Your task to perform on an android device: Search for the best rated circular saw on Lowes.com Image 0: 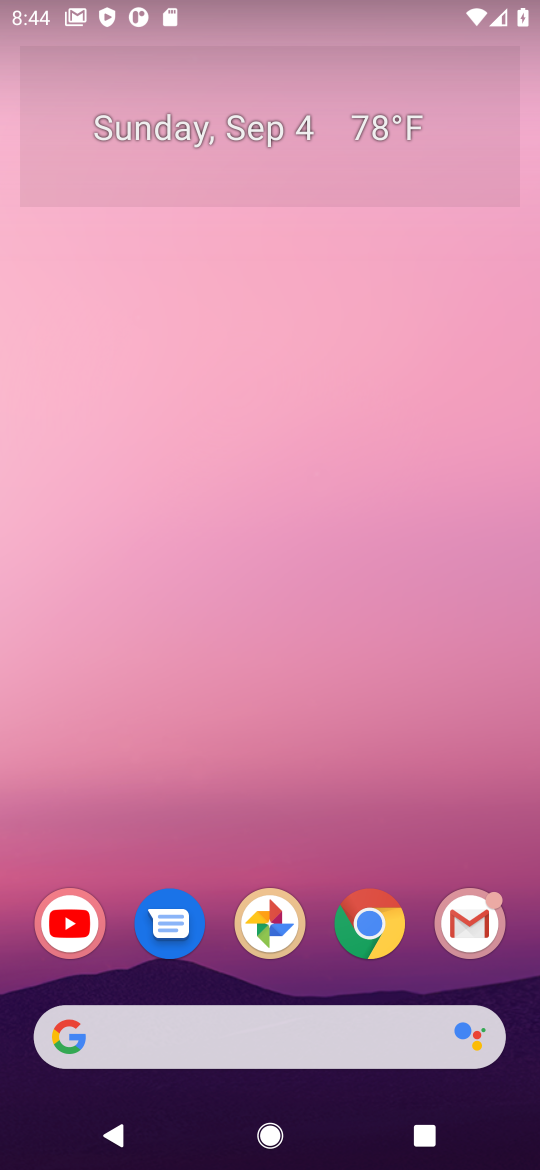
Step 0: click (354, 922)
Your task to perform on an android device: Search for the best rated circular saw on Lowes.com Image 1: 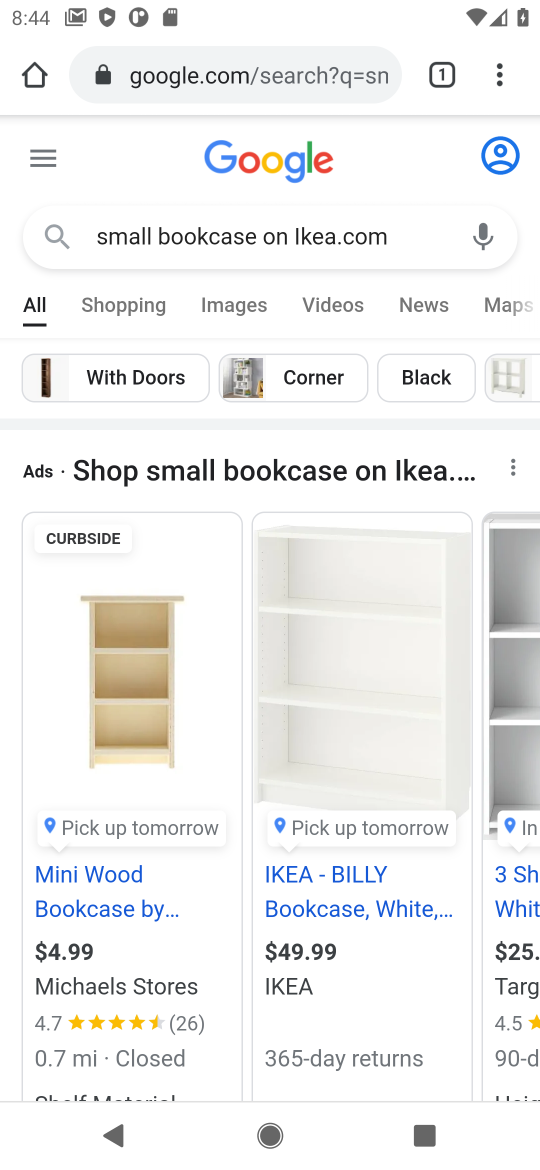
Step 1: click (174, 45)
Your task to perform on an android device: Search for the best rated circular saw on Lowes.com Image 2: 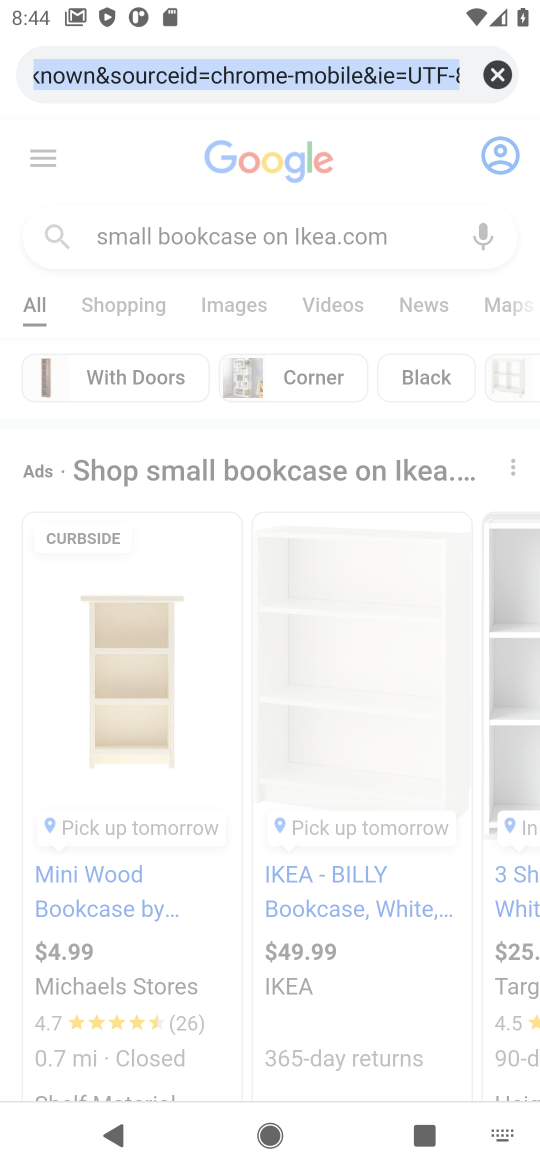
Step 2: click (173, 48)
Your task to perform on an android device: Search for the best rated circular saw on Lowes.com Image 3: 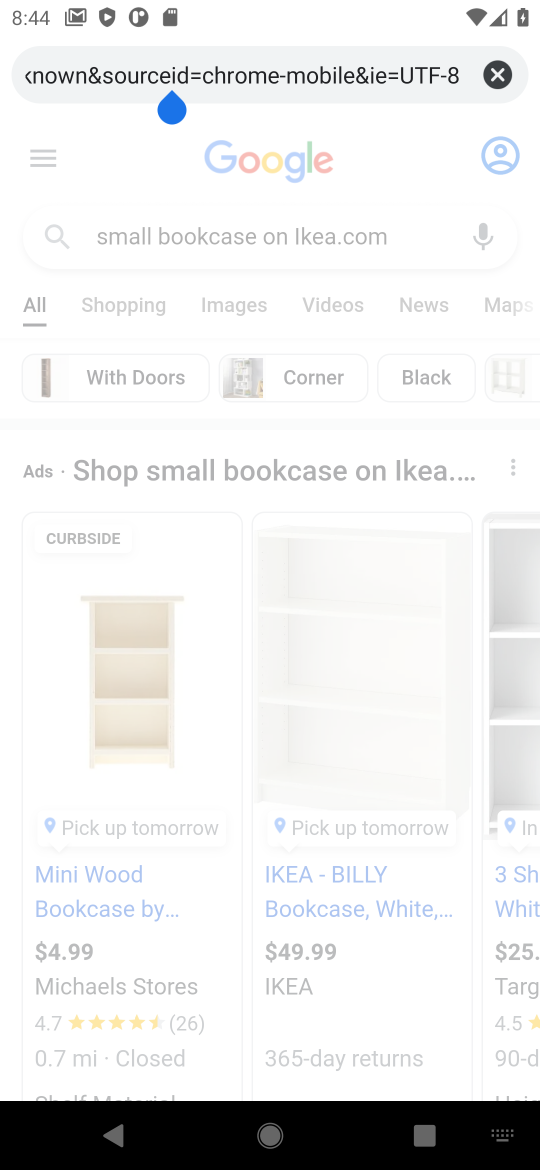
Step 3: click (494, 79)
Your task to perform on an android device: Search for the best rated circular saw on Lowes.com Image 4: 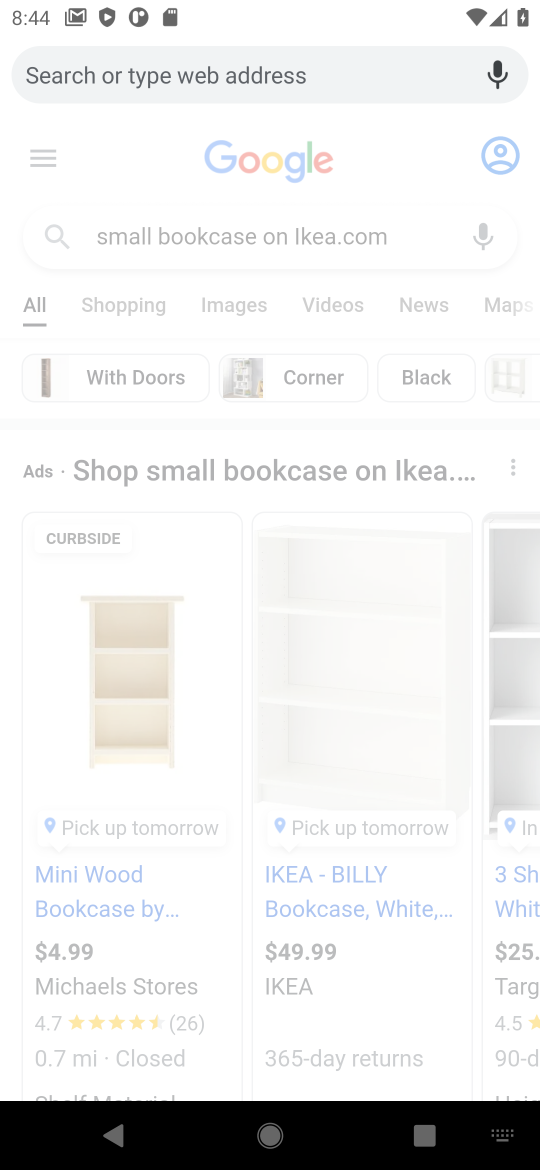
Step 4: type "the best rated circular saw on Lowes.com"
Your task to perform on an android device: Search for the best rated circular saw on Lowes.com Image 5: 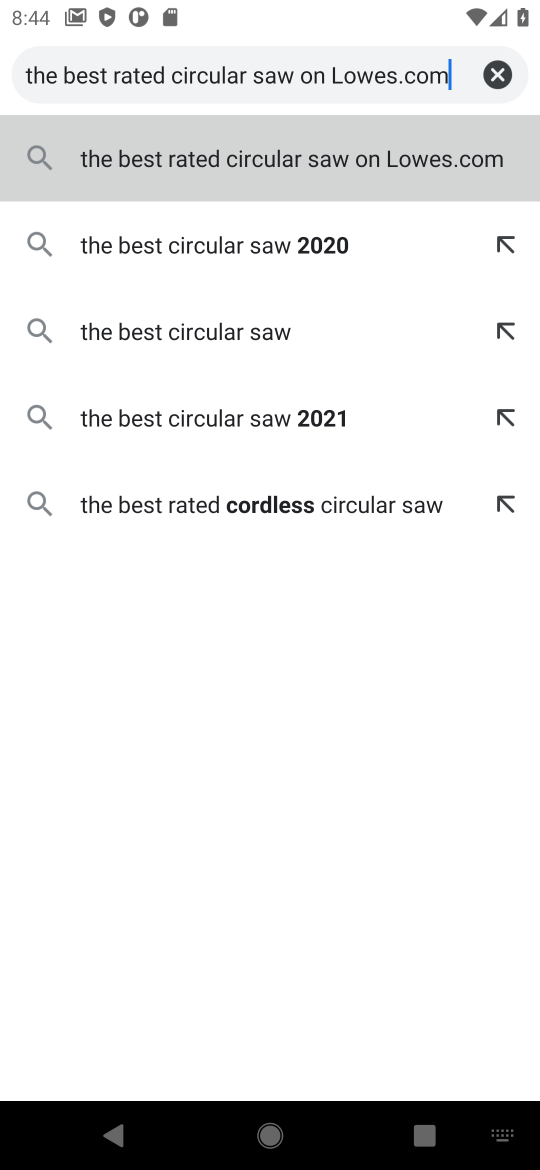
Step 5: click (297, 151)
Your task to perform on an android device: Search for the best rated circular saw on Lowes.com Image 6: 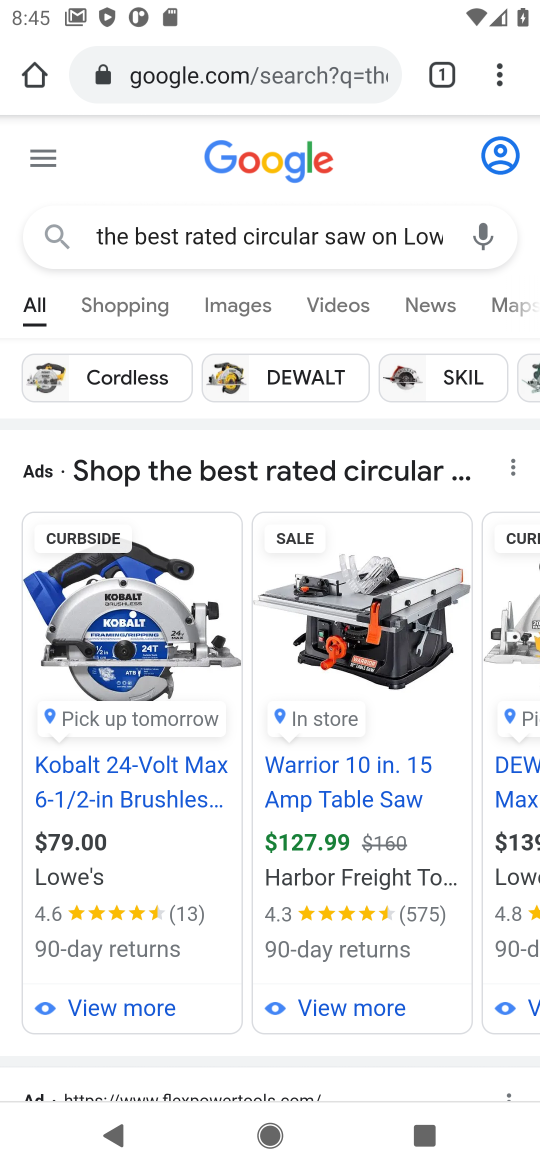
Step 6: click (340, 627)
Your task to perform on an android device: Search for the best rated circular saw on Lowes.com Image 7: 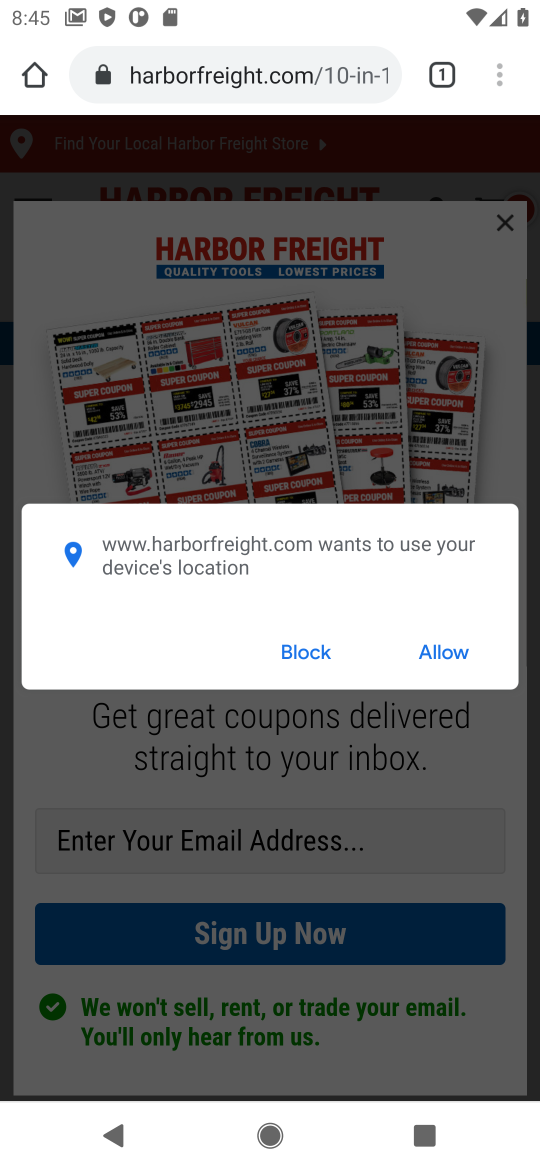
Step 7: click (302, 653)
Your task to perform on an android device: Search for the best rated circular saw on Lowes.com Image 8: 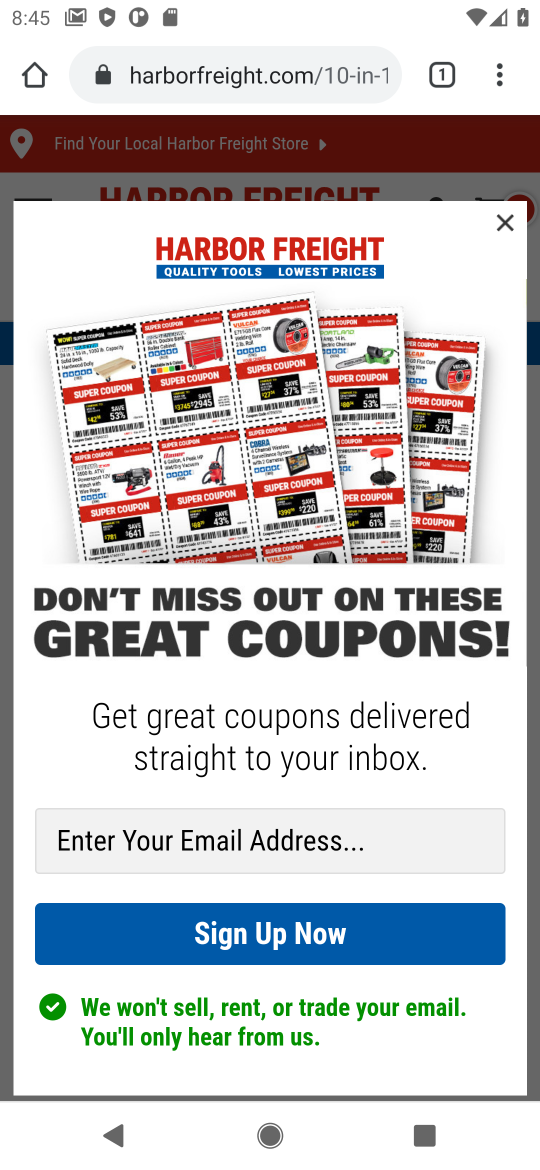
Step 8: click (273, 662)
Your task to perform on an android device: Search for the best rated circular saw on Lowes.com Image 9: 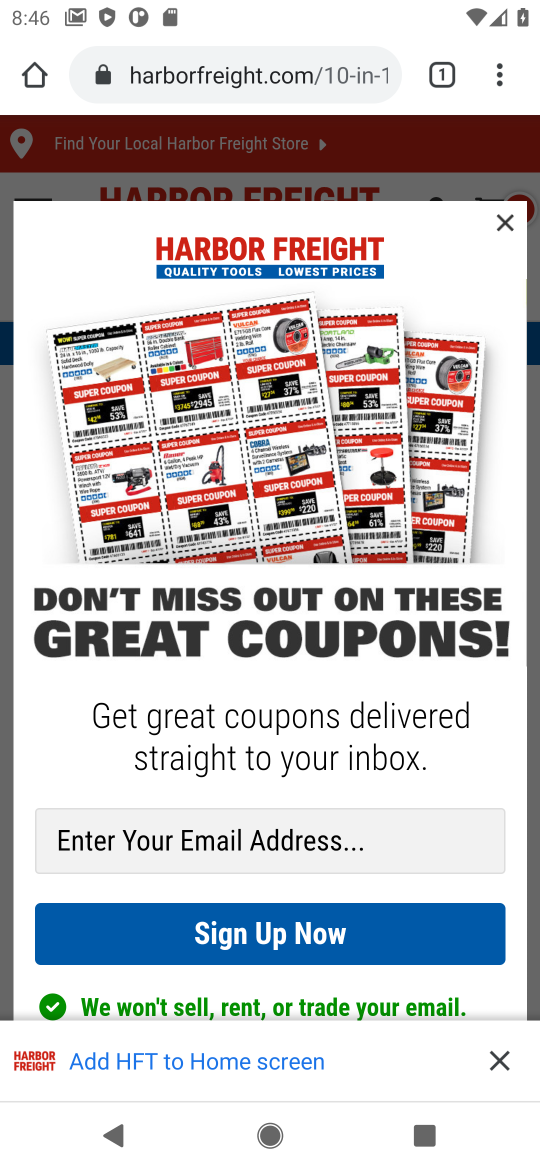
Step 9: task complete